Your task to perform on an android device: open app "Booking.com: Hotels and more" (install if not already installed) and go to login screen Image 0: 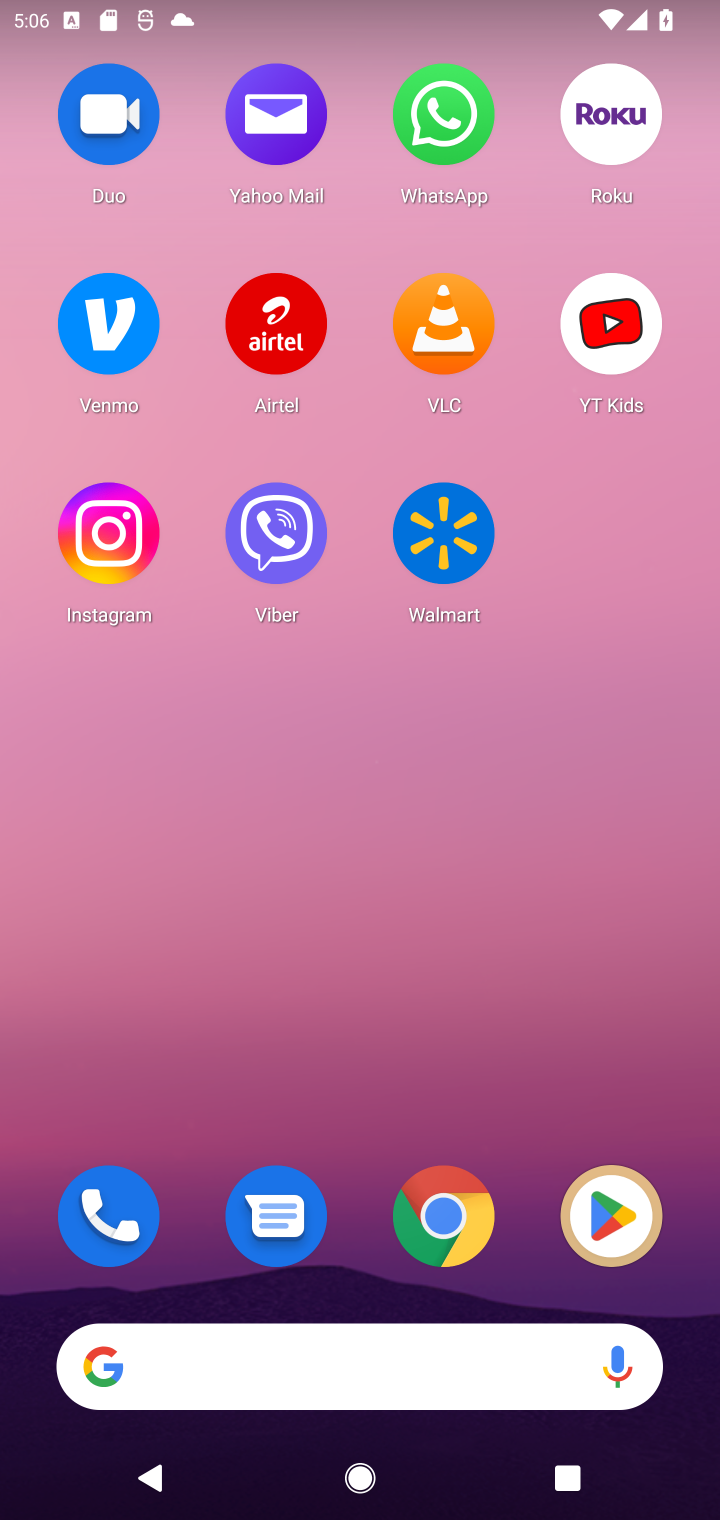
Step 0: drag from (314, 875) to (314, 263)
Your task to perform on an android device: open app "Booking.com: Hotels and more" (install if not already installed) and go to login screen Image 1: 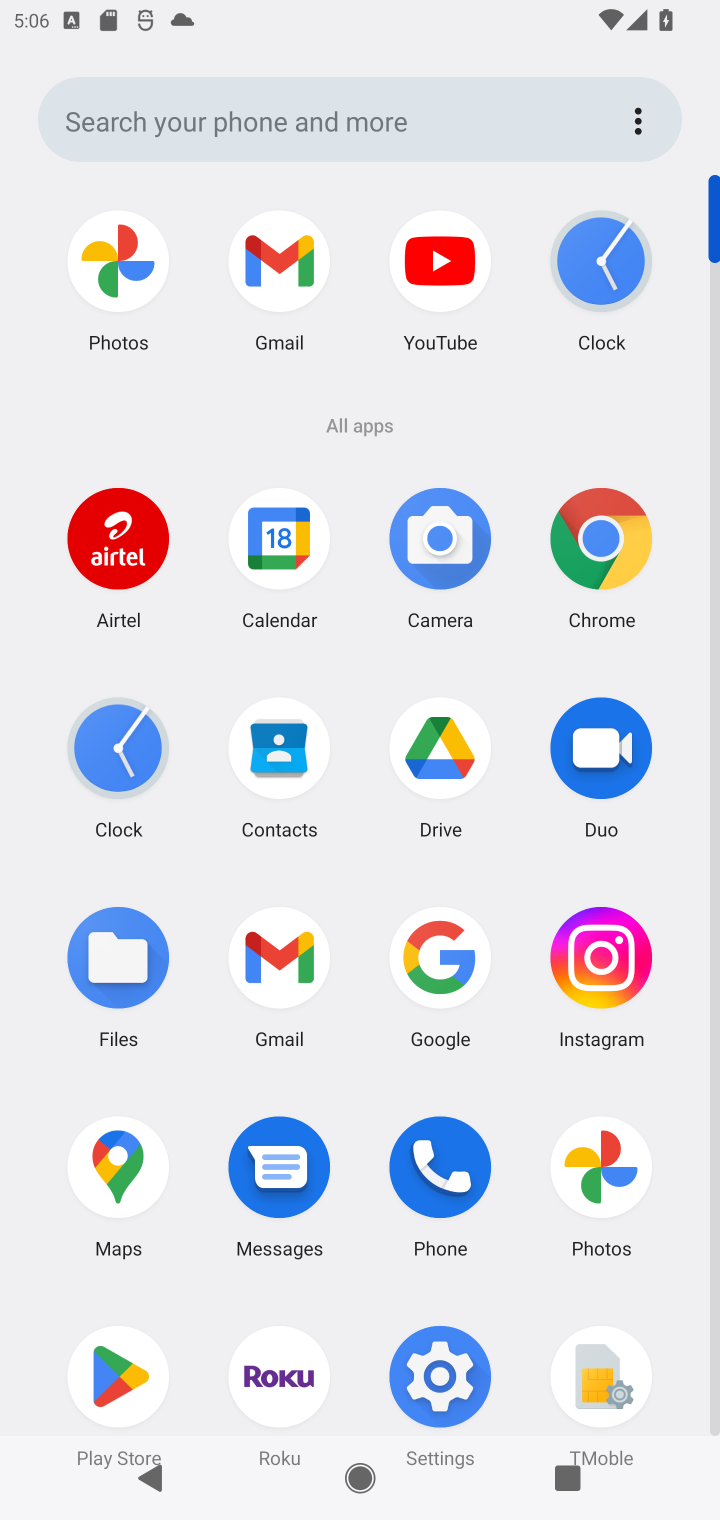
Step 1: click (137, 1363)
Your task to perform on an android device: open app "Booking.com: Hotels and more" (install if not already installed) and go to login screen Image 2: 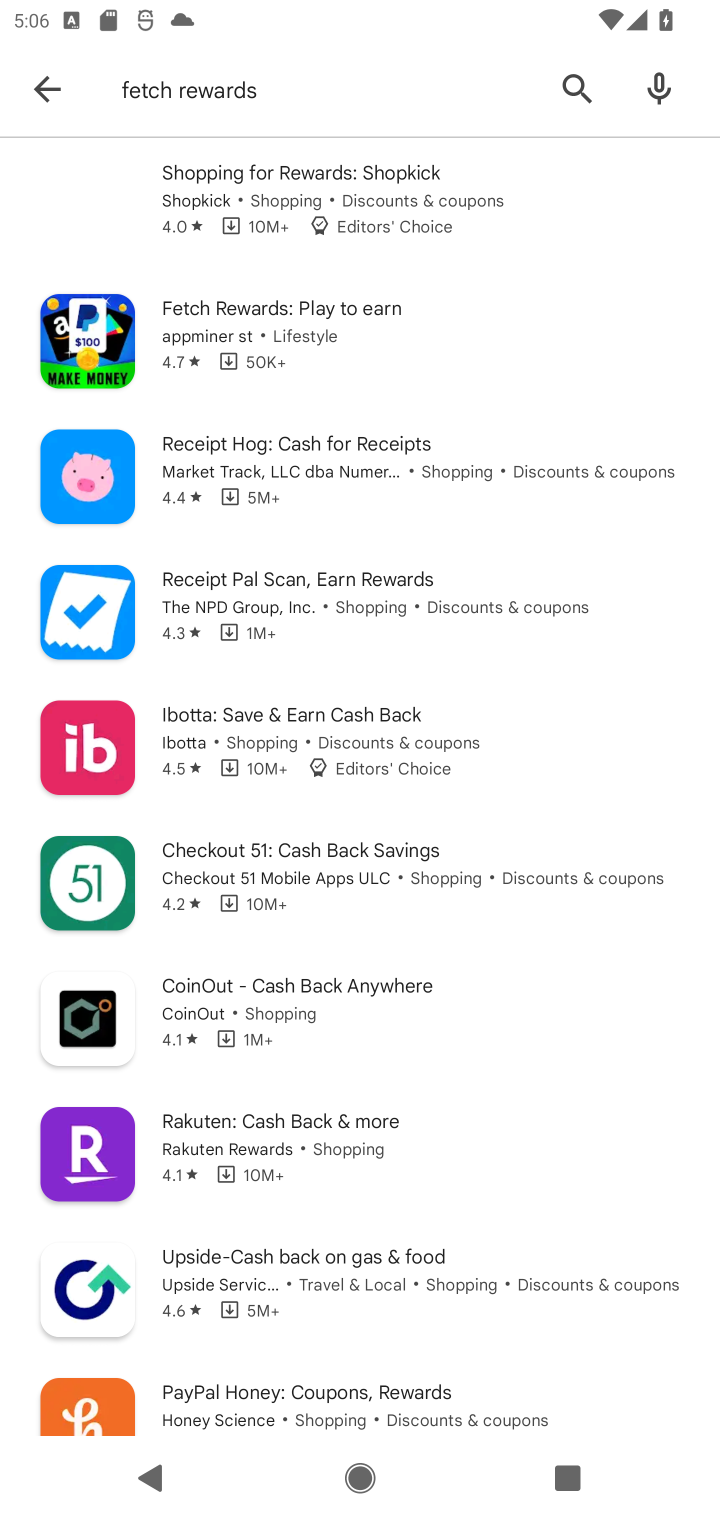
Step 2: click (566, 80)
Your task to perform on an android device: open app "Booking.com: Hotels and more" (install if not already installed) and go to login screen Image 3: 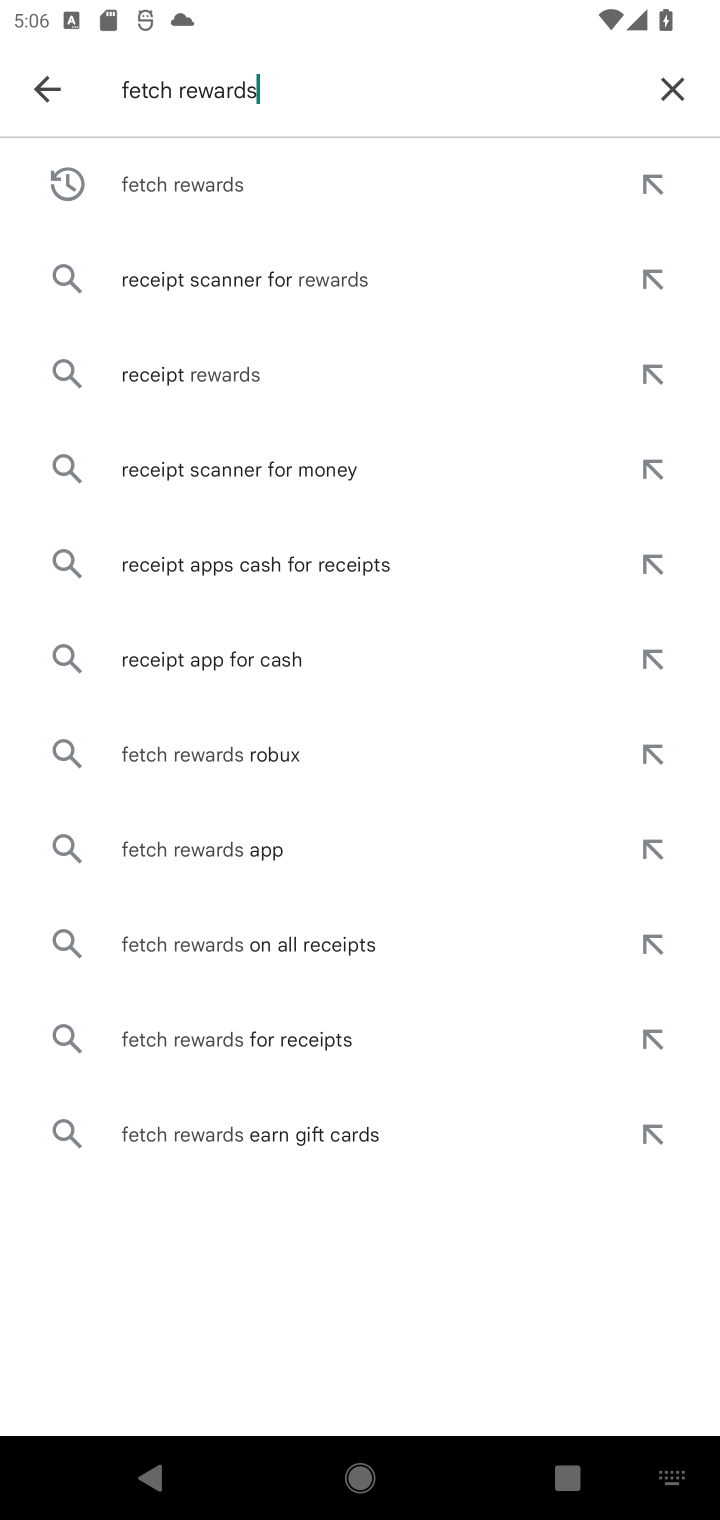
Step 3: click (655, 86)
Your task to perform on an android device: open app "Booking.com: Hotels and more" (install if not already installed) and go to login screen Image 4: 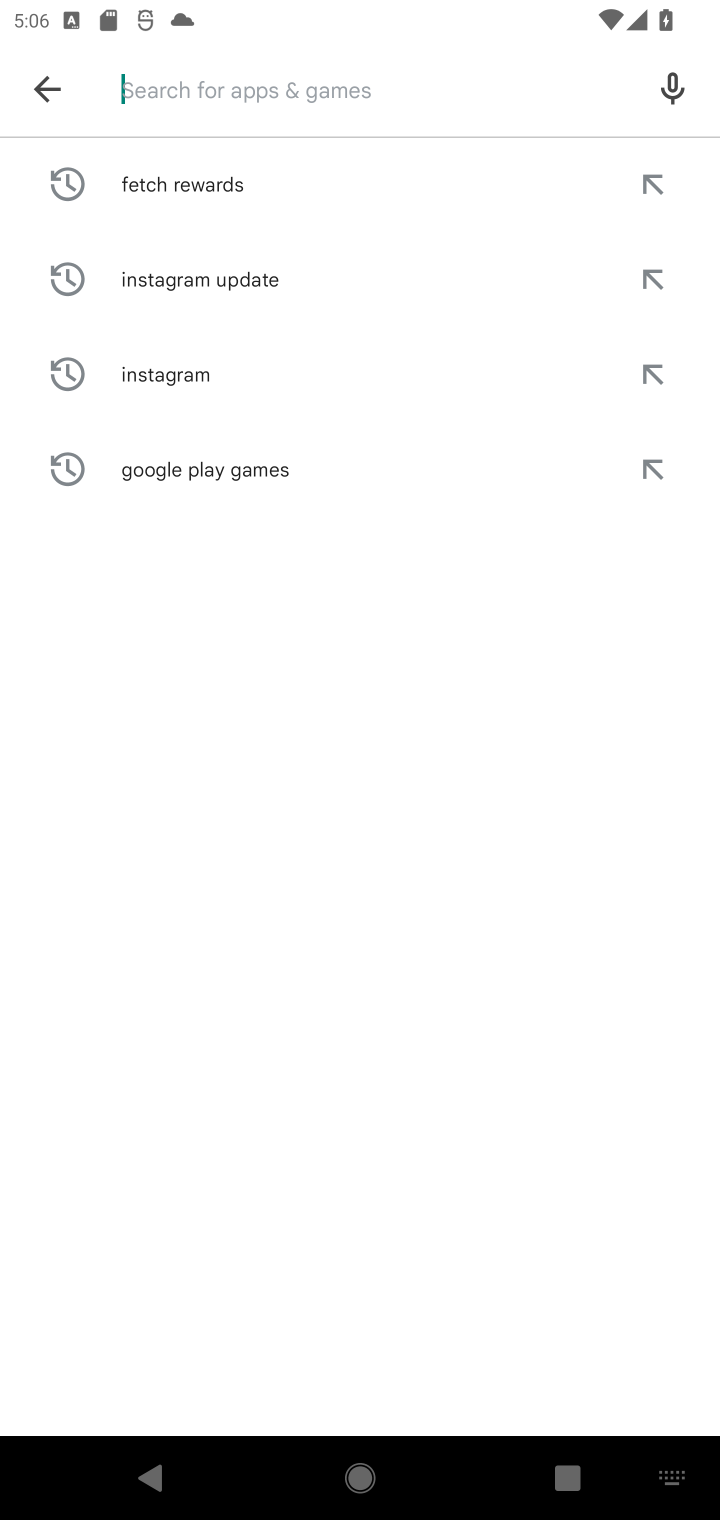
Step 4: type "Booking.com: Hotels and more"
Your task to perform on an android device: open app "Booking.com: Hotels and more" (install if not already installed) and go to login screen Image 5: 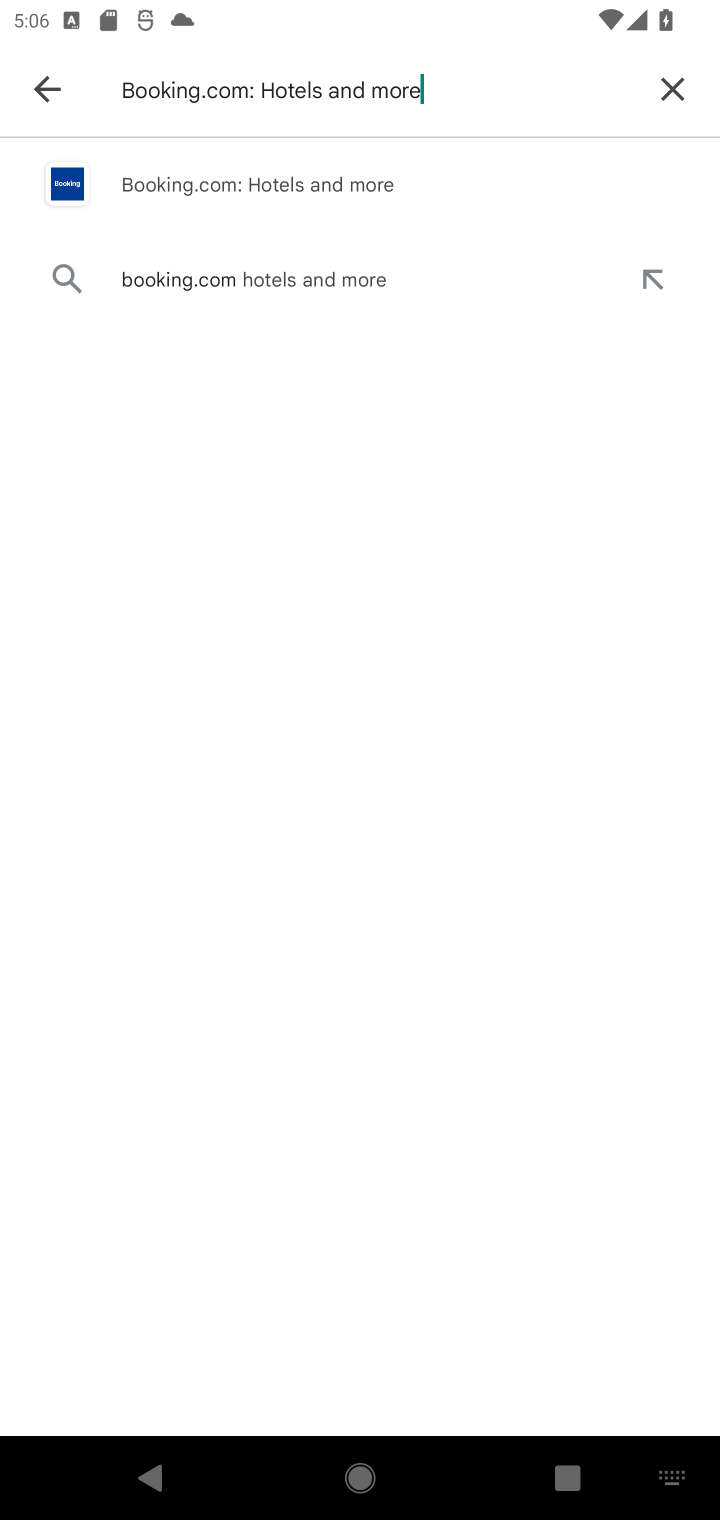
Step 5: click (363, 190)
Your task to perform on an android device: open app "Booking.com: Hotels and more" (install if not already installed) and go to login screen Image 6: 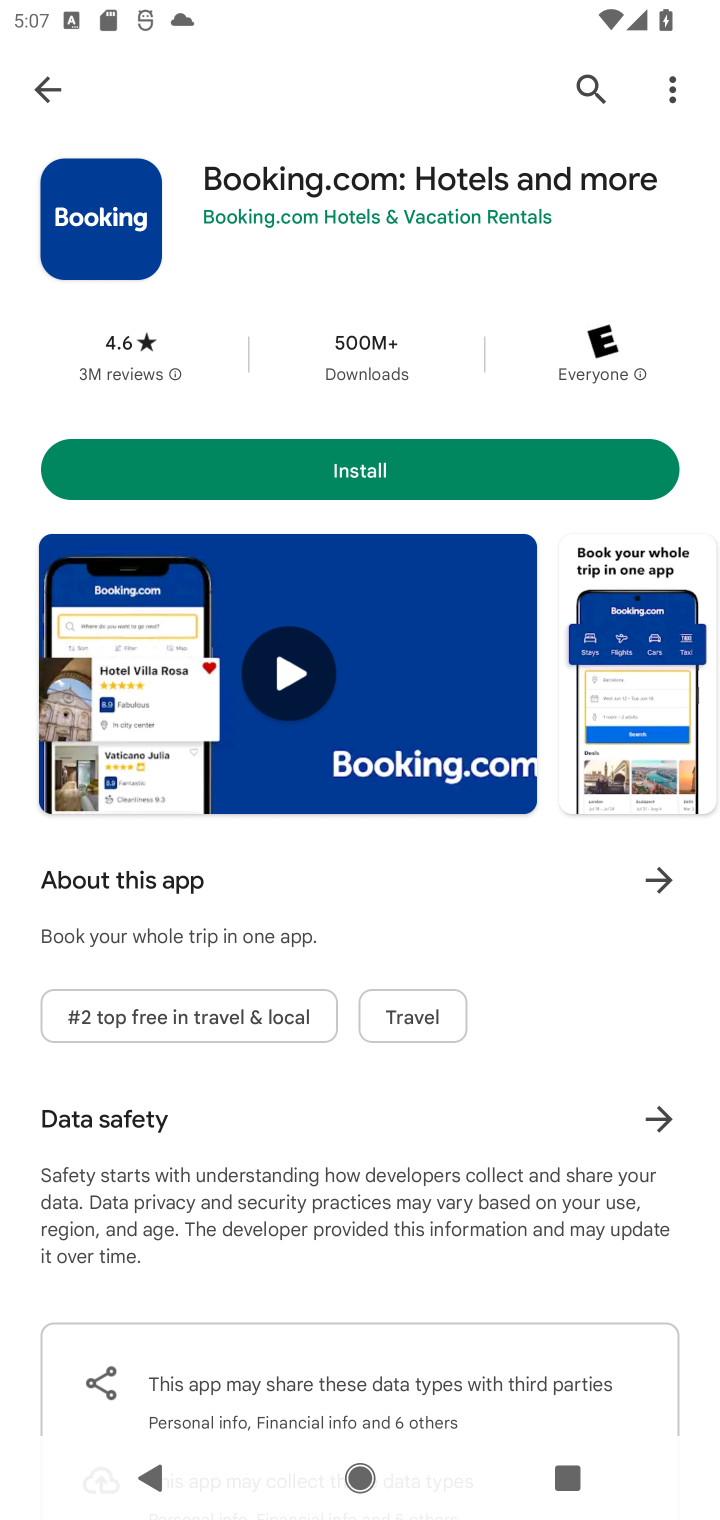
Step 6: click (280, 449)
Your task to perform on an android device: open app "Booking.com: Hotels and more" (install if not already installed) and go to login screen Image 7: 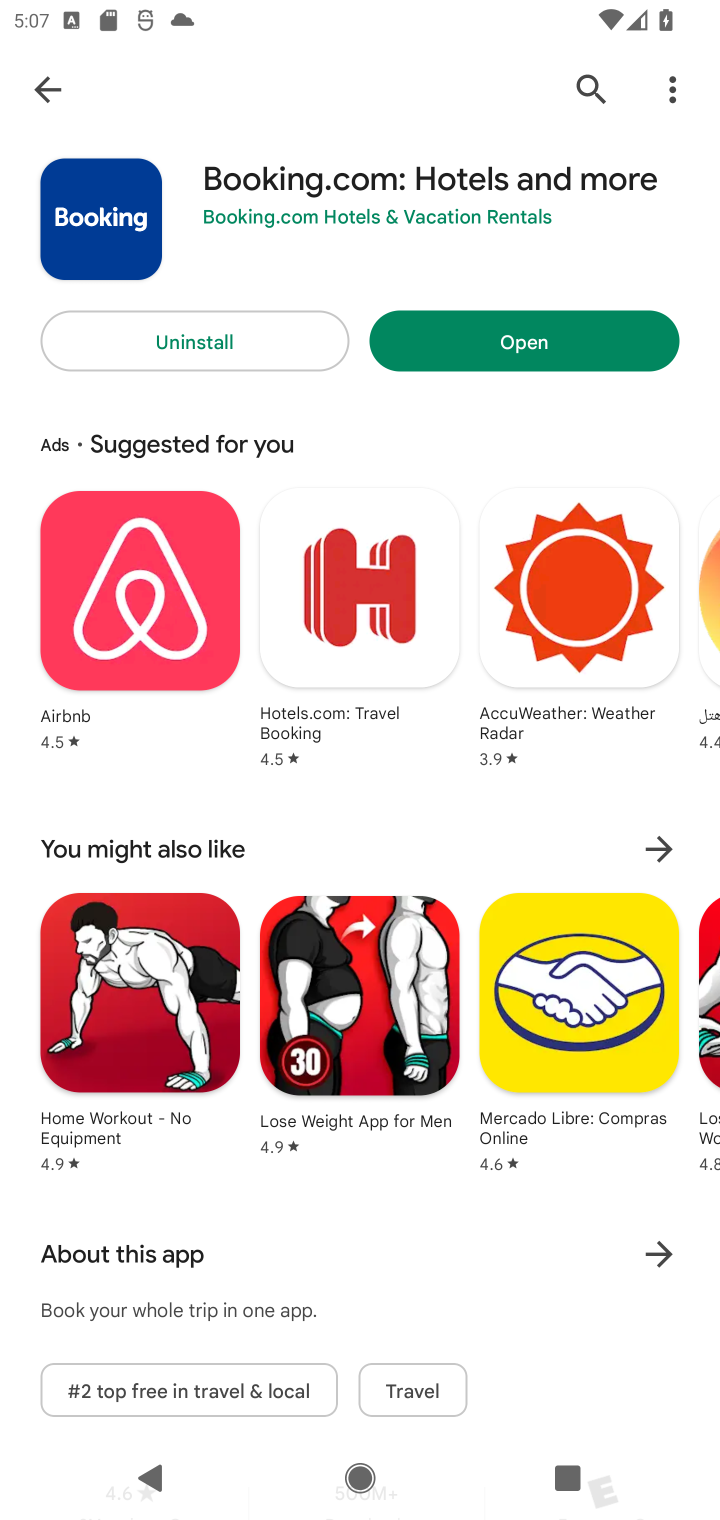
Step 7: click (522, 352)
Your task to perform on an android device: open app "Booking.com: Hotels and more" (install if not already installed) and go to login screen Image 8: 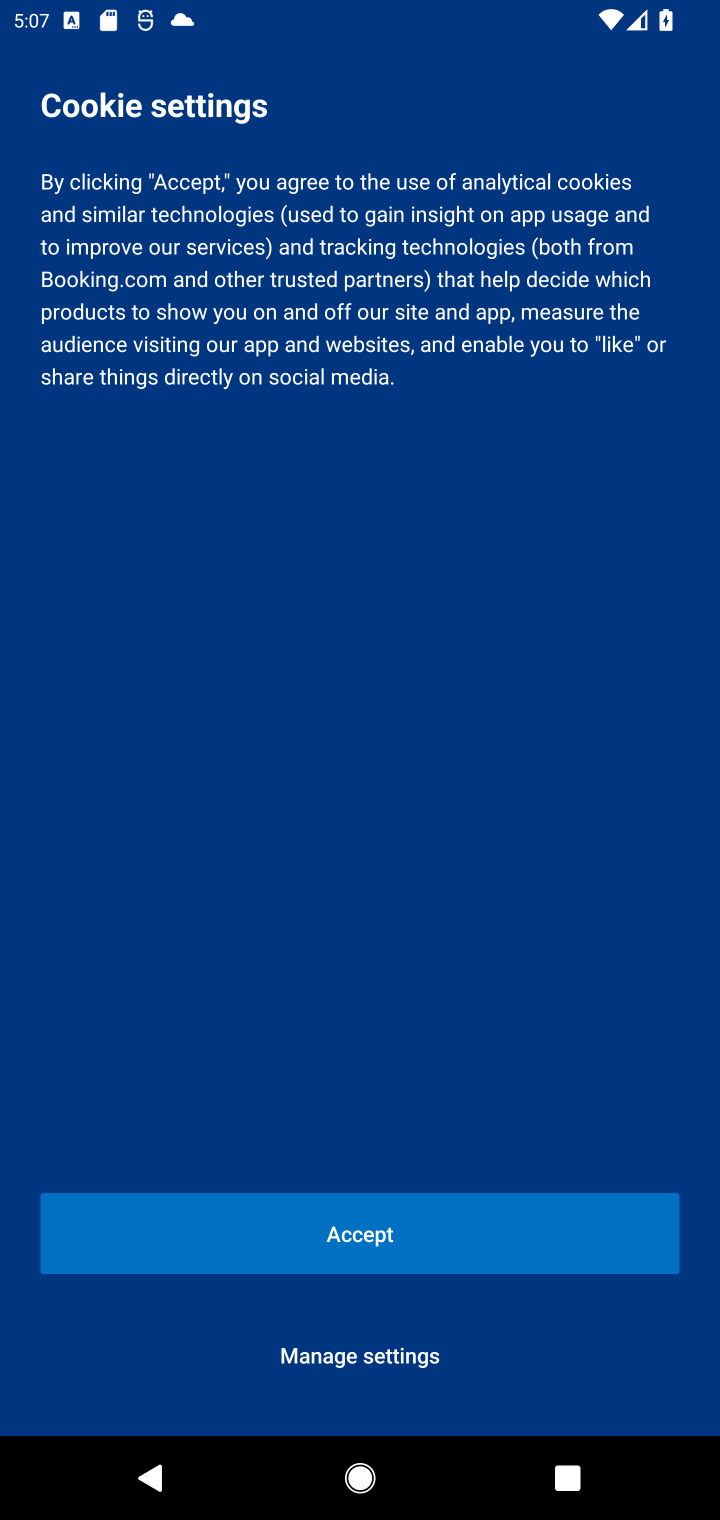
Step 8: press home button
Your task to perform on an android device: open app "Booking.com: Hotels and more" (install if not already installed) and go to login screen Image 9: 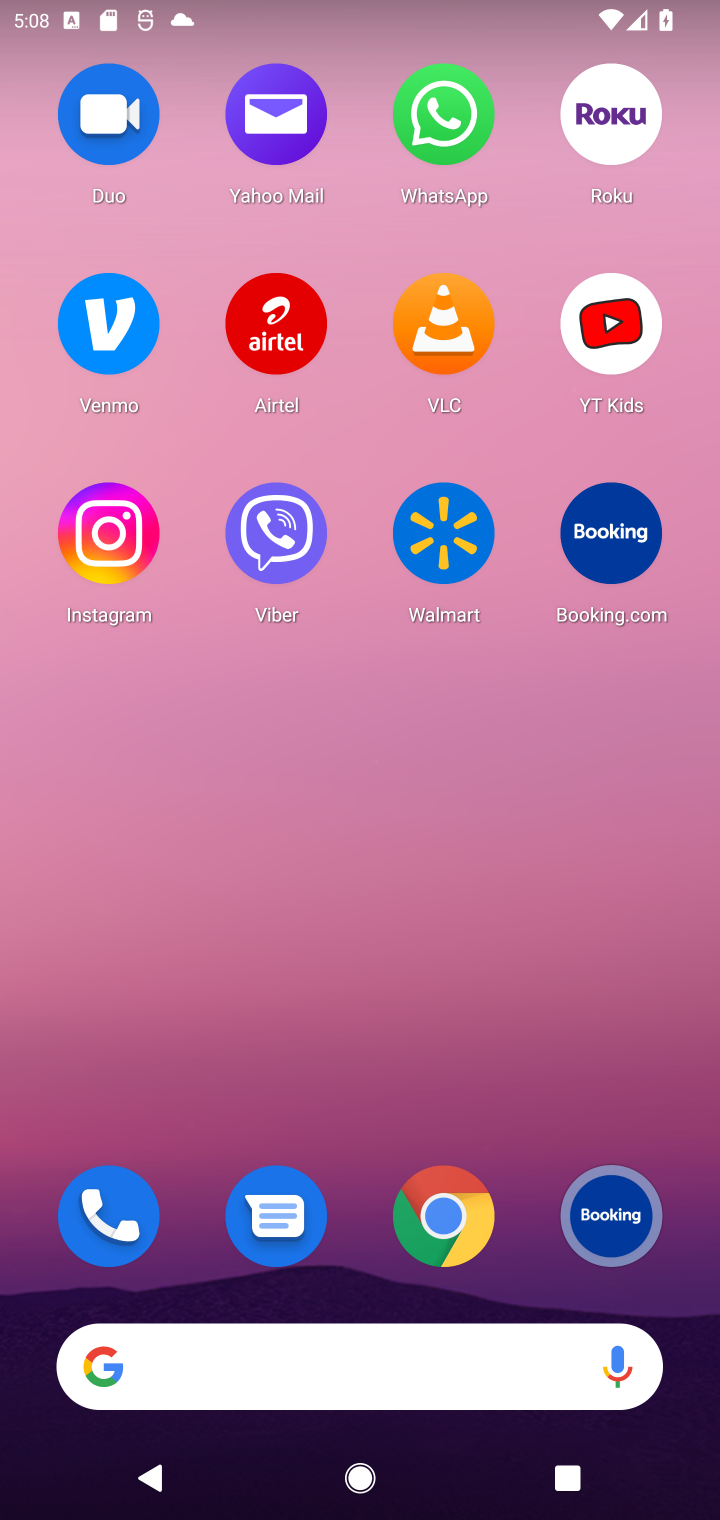
Step 9: drag from (357, 937) to (406, 236)
Your task to perform on an android device: open app "Booking.com: Hotels and more" (install if not already installed) and go to login screen Image 10: 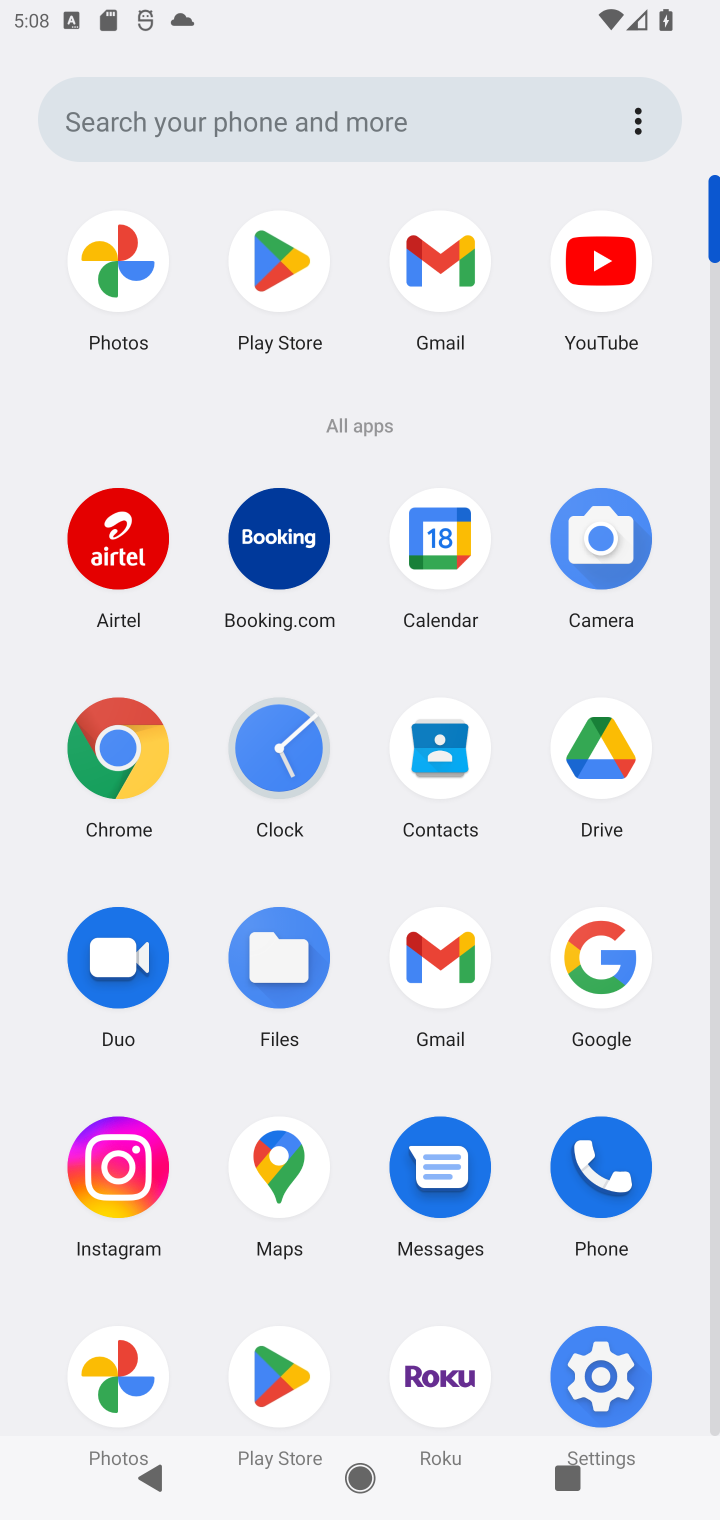
Step 10: click (270, 253)
Your task to perform on an android device: open app "Booking.com: Hotels and more" (install if not already installed) and go to login screen Image 11: 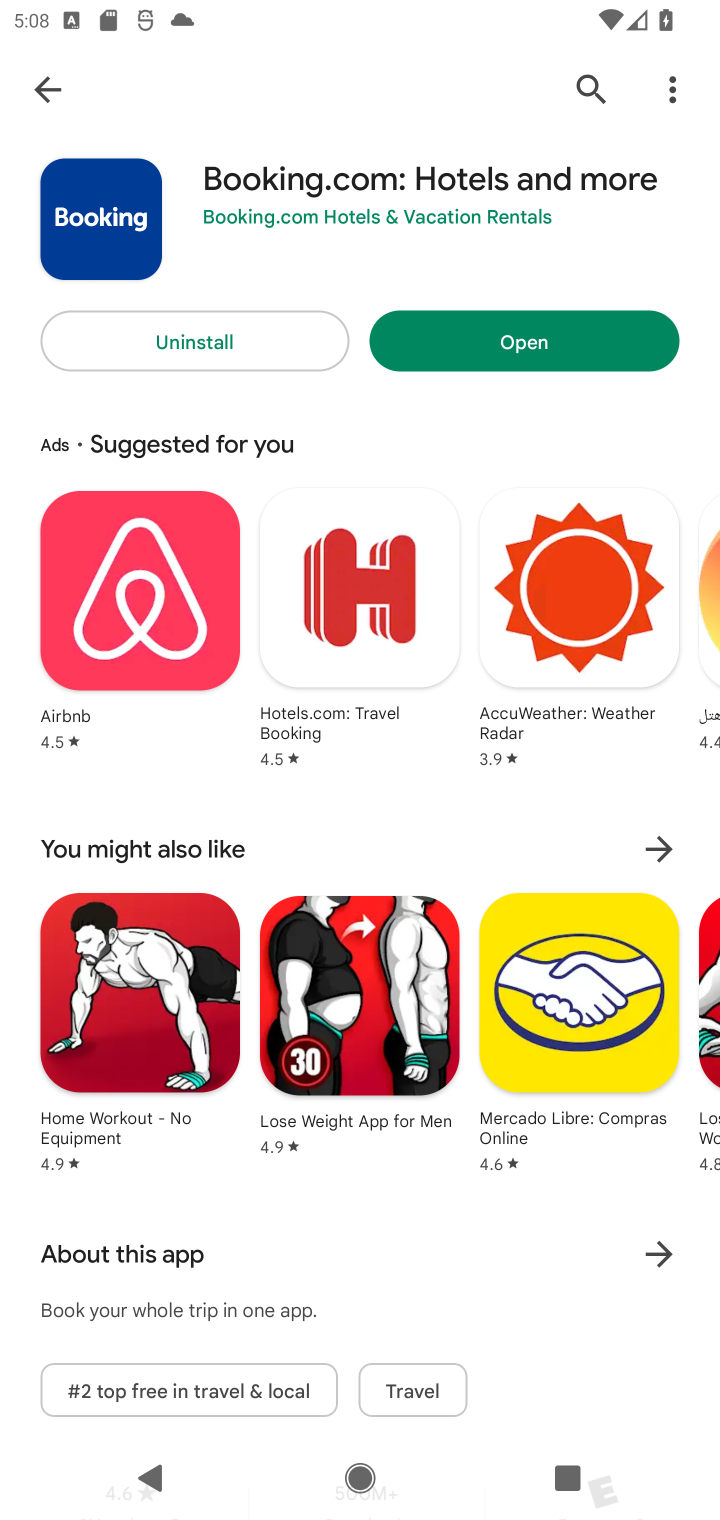
Step 11: click (438, 339)
Your task to perform on an android device: open app "Booking.com: Hotels and more" (install if not already installed) and go to login screen Image 12: 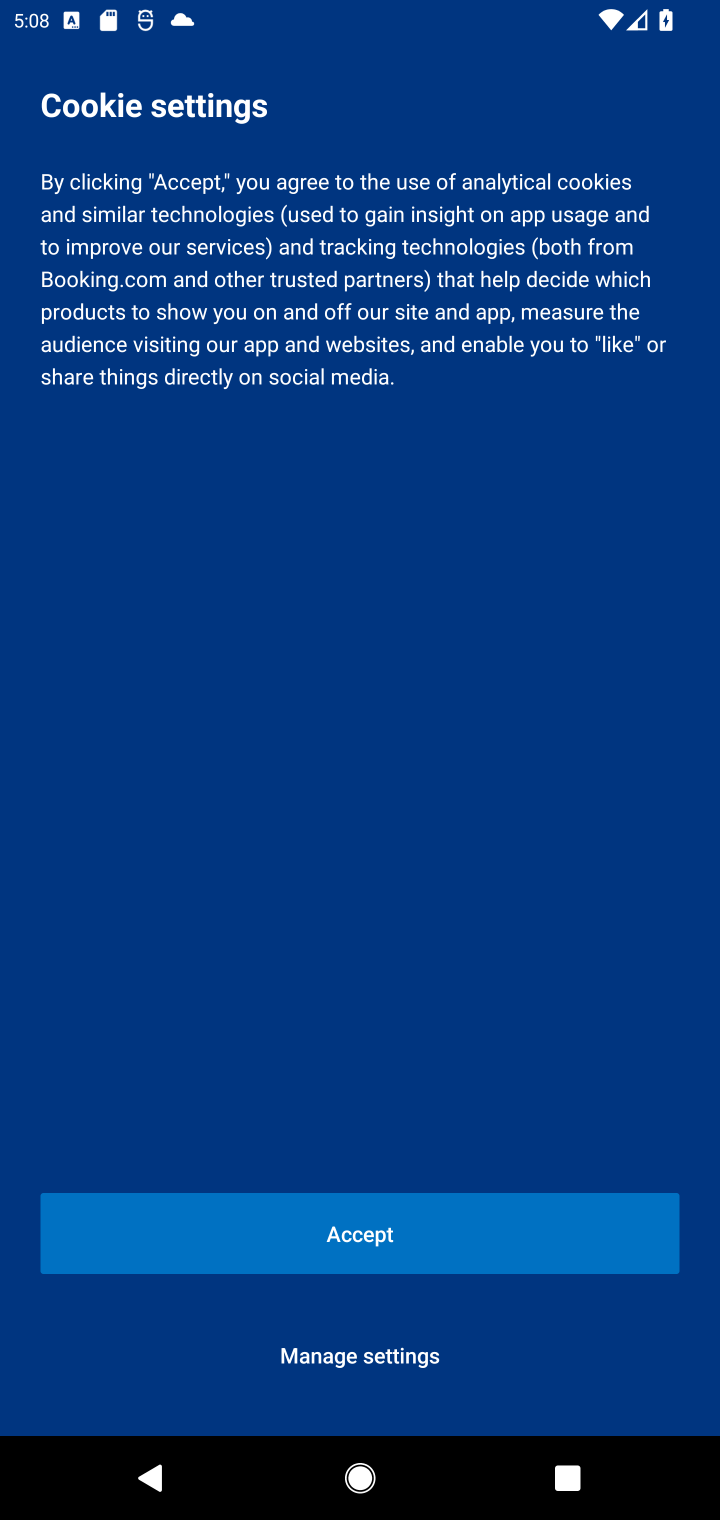
Step 12: task complete